Your task to perform on an android device: Go to Amazon Image 0: 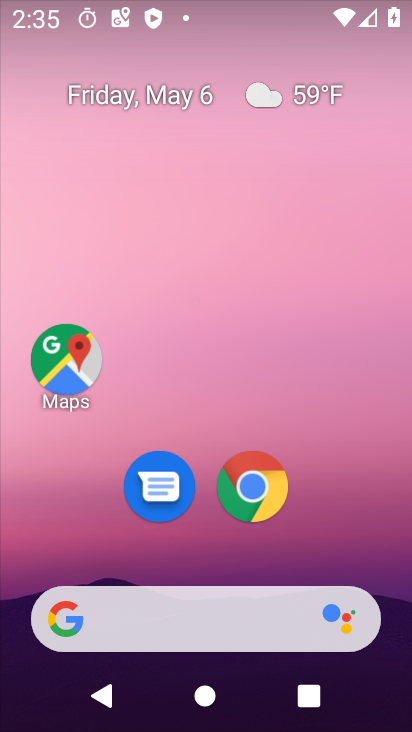
Step 0: click (248, 492)
Your task to perform on an android device: Go to Amazon Image 1: 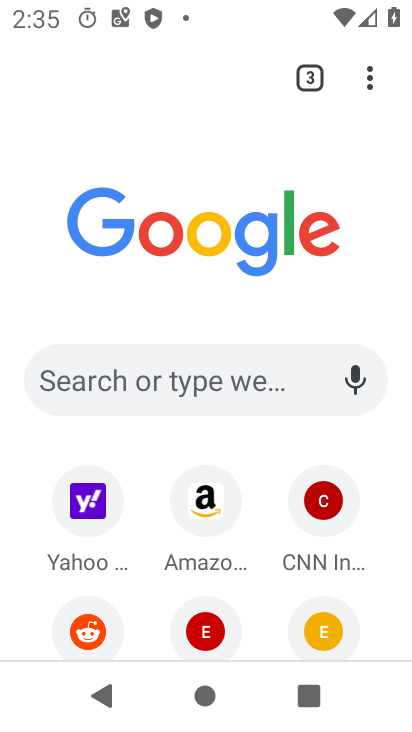
Step 1: click (199, 515)
Your task to perform on an android device: Go to Amazon Image 2: 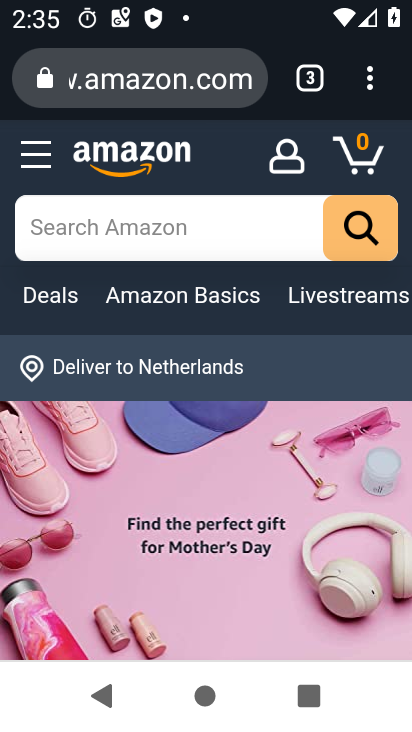
Step 2: task complete